Your task to perform on an android device: open sync settings in chrome Image 0: 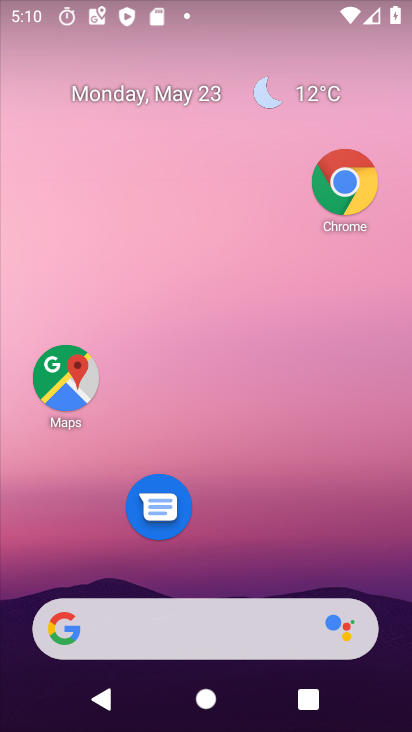
Step 0: click (343, 184)
Your task to perform on an android device: open sync settings in chrome Image 1: 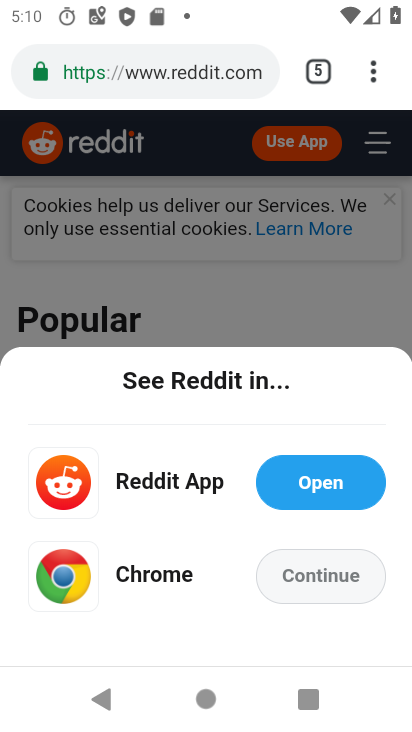
Step 1: click (384, 72)
Your task to perform on an android device: open sync settings in chrome Image 2: 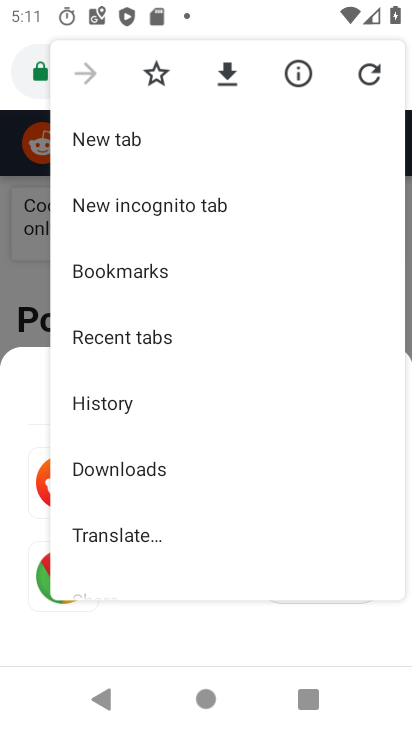
Step 2: drag from (176, 134) to (155, 494)
Your task to perform on an android device: open sync settings in chrome Image 3: 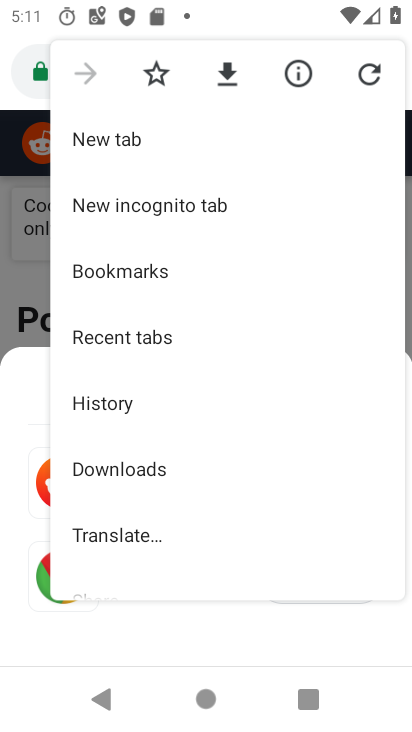
Step 3: drag from (130, 558) to (220, 99)
Your task to perform on an android device: open sync settings in chrome Image 4: 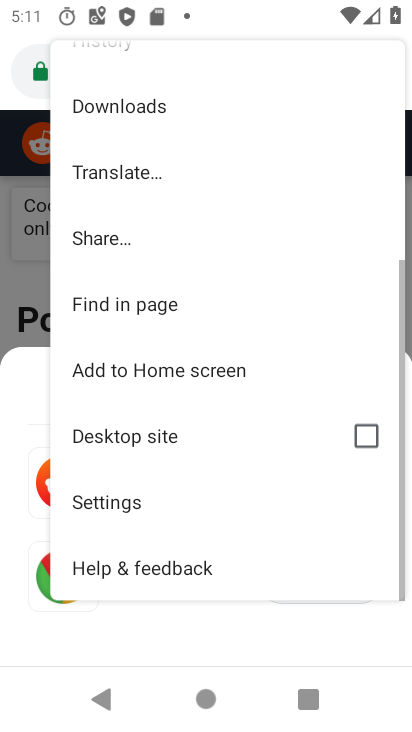
Step 4: click (144, 506)
Your task to perform on an android device: open sync settings in chrome Image 5: 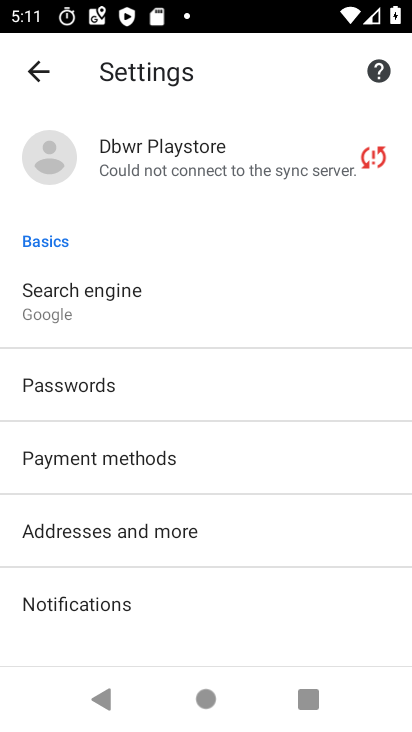
Step 5: click (155, 160)
Your task to perform on an android device: open sync settings in chrome Image 6: 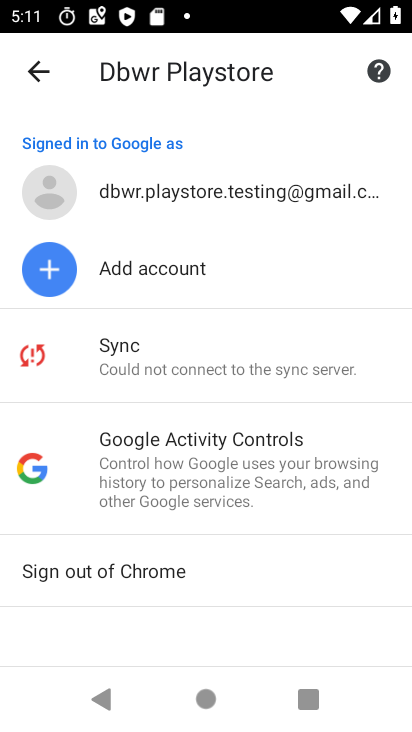
Step 6: click (91, 363)
Your task to perform on an android device: open sync settings in chrome Image 7: 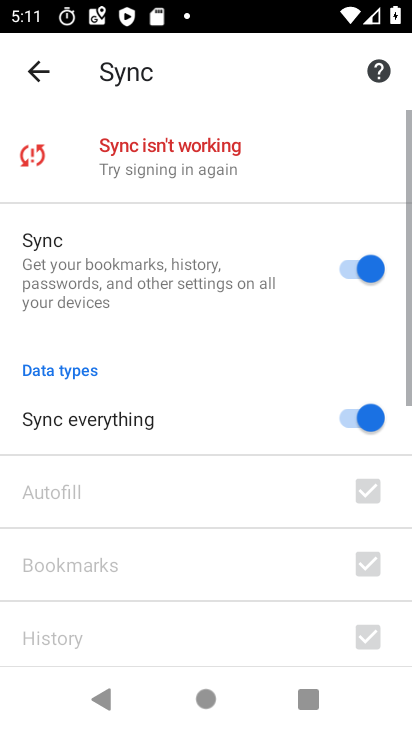
Step 7: task complete